Your task to perform on an android device: Open the map Image 0: 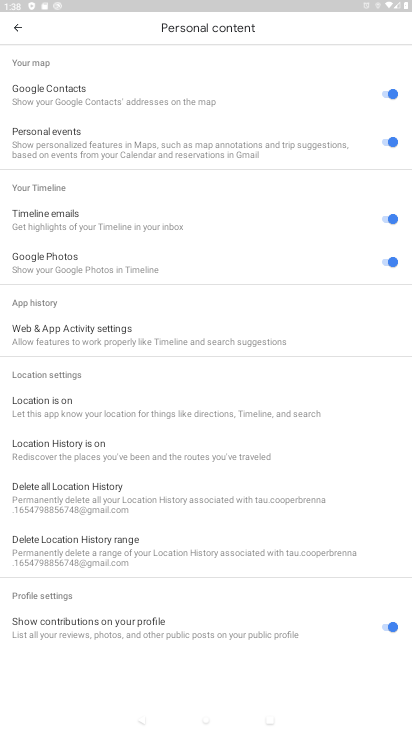
Step 0: press home button
Your task to perform on an android device: Open the map Image 1: 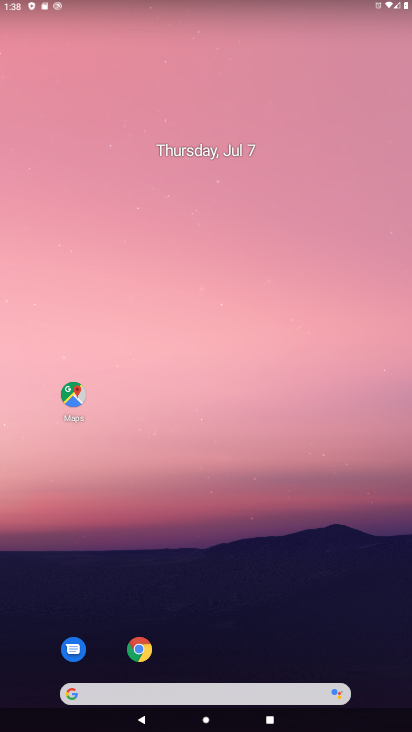
Step 1: click (71, 394)
Your task to perform on an android device: Open the map Image 2: 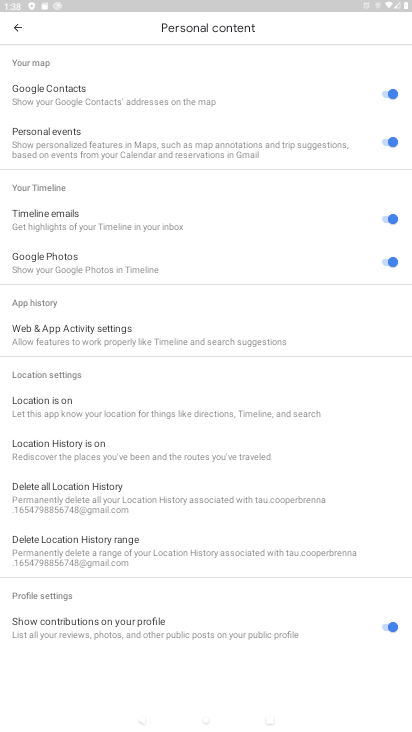
Step 2: task complete